Your task to perform on an android device: Open calendar and show me the first week of next month Image 0: 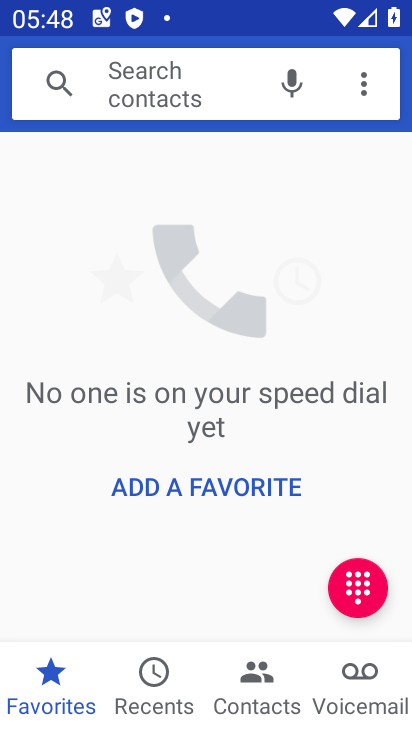
Step 0: press home button
Your task to perform on an android device: Open calendar and show me the first week of next month Image 1: 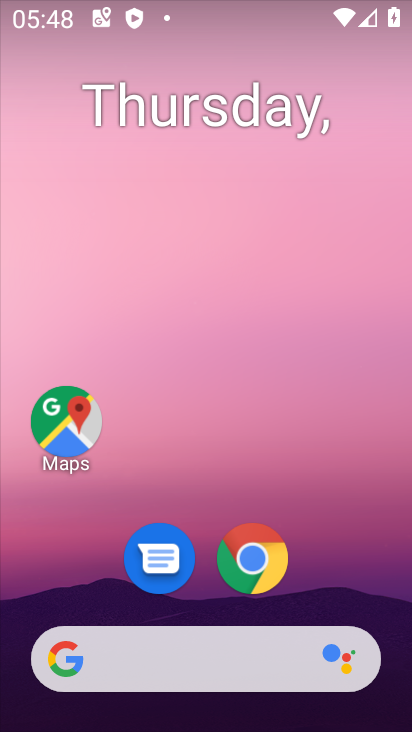
Step 1: drag from (320, 600) to (316, 153)
Your task to perform on an android device: Open calendar and show me the first week of next month Image 2: 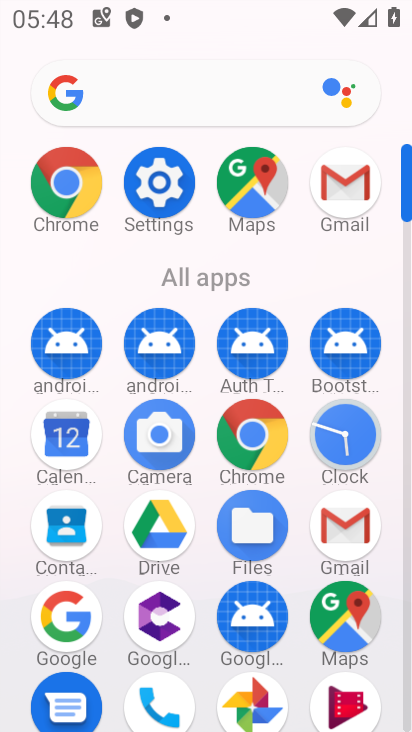
Step 2: click (75, 456)
Your task to perform on an android device: Open calendar and show me the first week of next month Image 3: 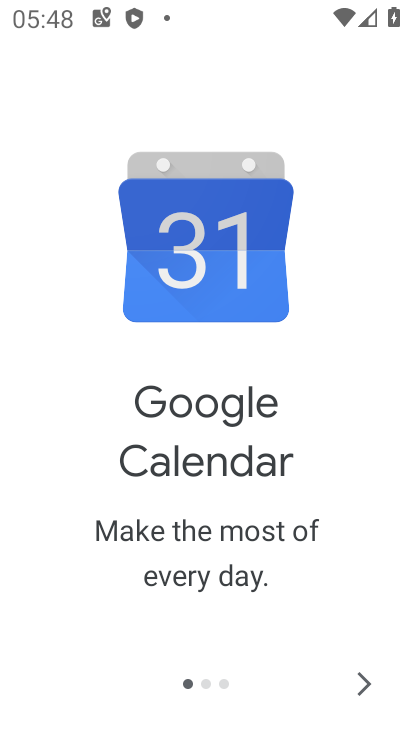
Step 3: click (369, 679)
Your task to perform on an android device: Open calendar and show me the first week of next month Image 4: 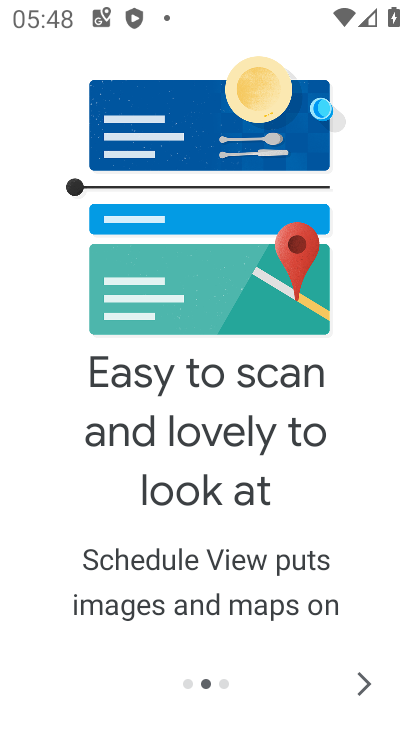
Step 4: click (360, 686)
Your task to perform on an android device: Open calendar and show me the first week of next month Image 5: 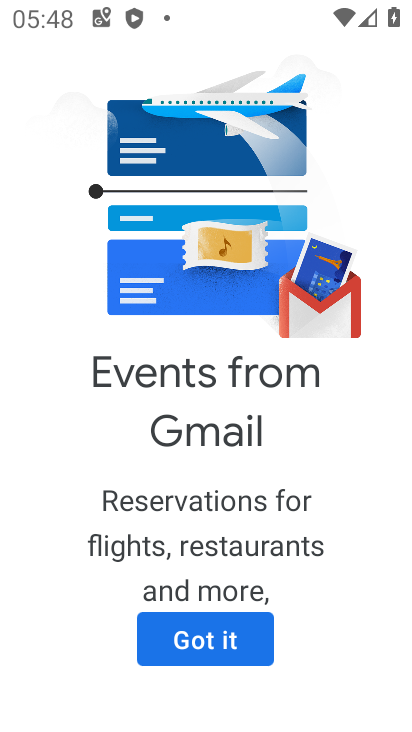
Step 5: click (218, 644)
Your task to perform on an android device: Open calendar and show me the first week of next month Image 6: 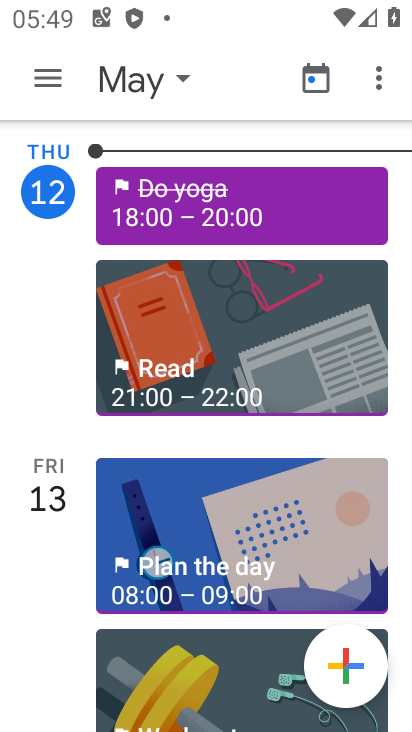
Step 6: click (54, 87)
Your task to perform on an android device: Open calendar and show me the first week of next month Image 7: 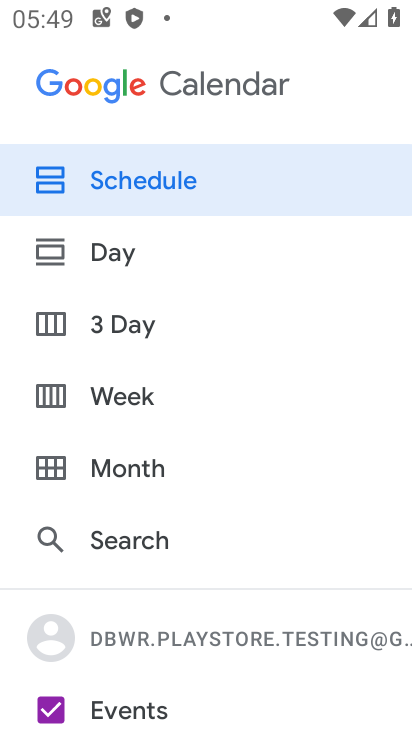
Step 7: drag from (183, 645) to (202, 280)
Your task to perform on an android device: Open calendar and show me the first week of next month Image 8: 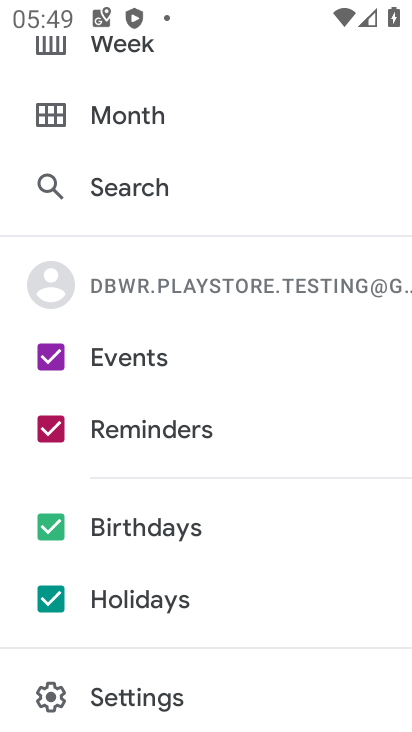
Step 8: drag from (203, 189) to (168, 721)
Your task to perform on an android device: Open calendar and show me the first week of next month Image 9: 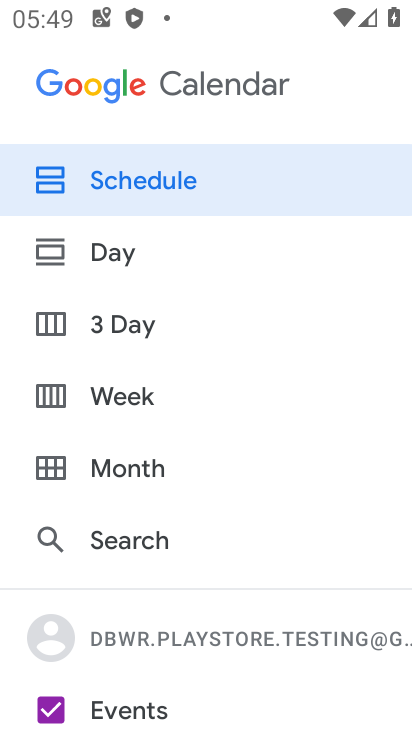
Step 9: click (108, 401)
Your task to perform on an android device: Open calendar and show me the first week of next month Image 10: 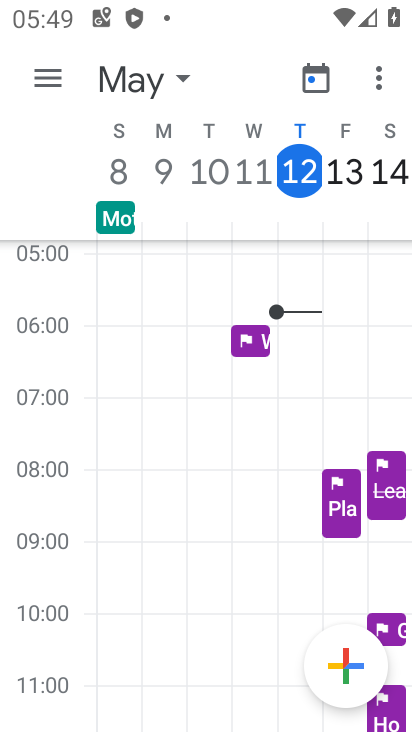
Step 10: click (137, 88)
Your task to perform on an android device: Open calendar and show me the first week of next month Image 11: 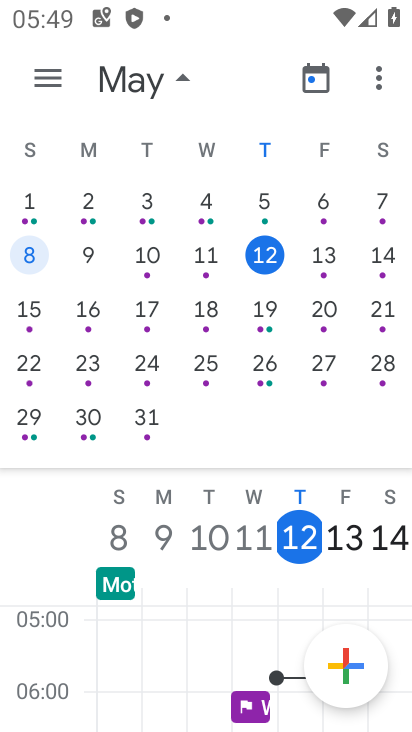
Step 11: drag from (356, 303) to (9, 301)
Your task to perform on an android device: Open calendar and show me the first week of next month Image 12: 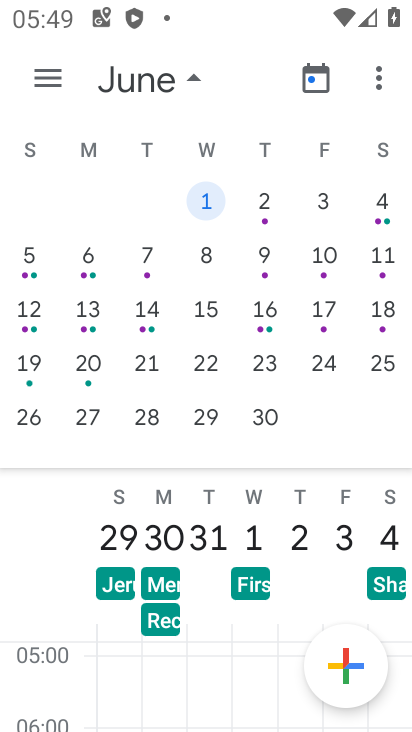
Step 12: click (34, 264)
Your task to perform on an android device: Open calendar and show me the first week of next month Image 13: 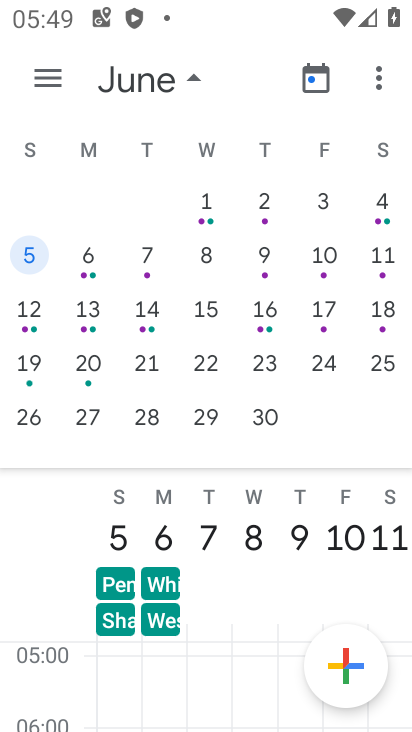
Step 13: task complete